Your task to perform on an android device: turn off javascript in the chrome app Image 0: 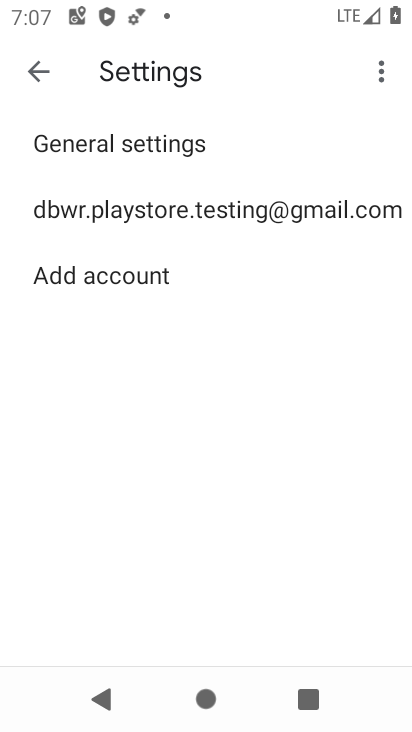
Step 0: press home button
Your task to perform on an android device: turn off javascript in the chrome app Image 1: 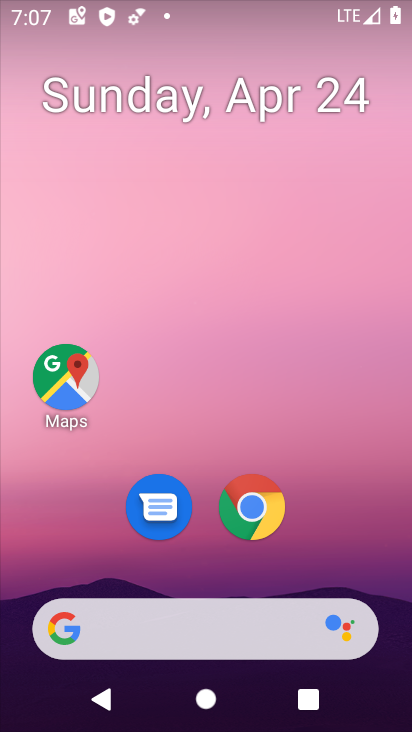
Step 1: drag from (325, 516) to (333, 0)
Your task to perform on an android device: turn off javascript in the chrome app Image 2: 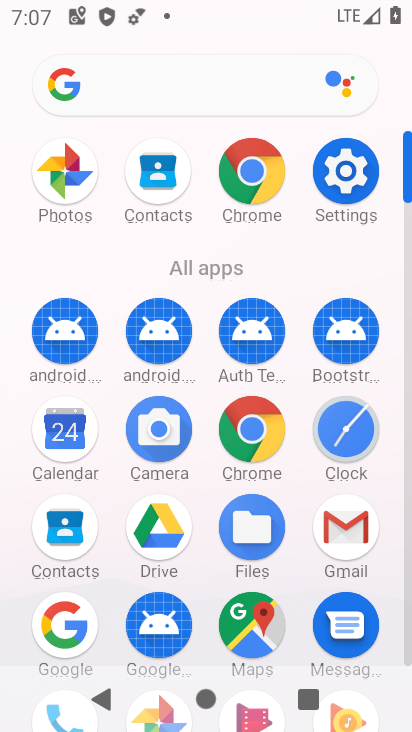
Step 2: click (264, 172)
Your task to perform on an android device: turn off javascript in the chrome app Image 3: 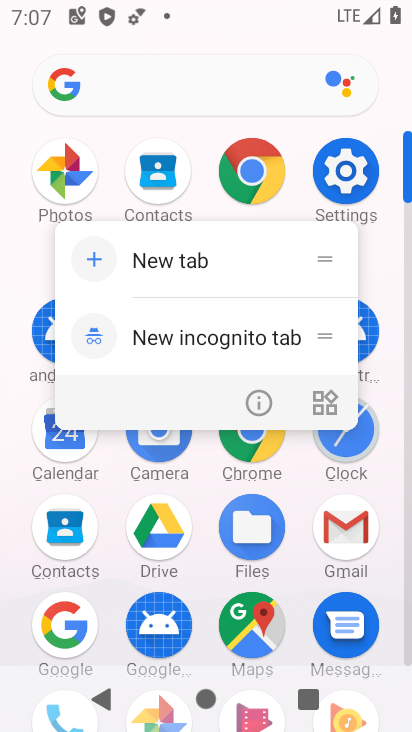
Step 3: click (264, 172)
Your task to perform on an android device: turn off javascript in the chrome app Image 4: 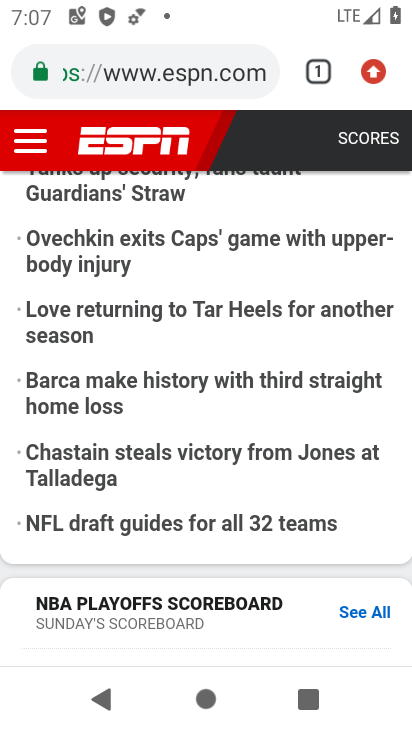
Step 4: click (391, 66)
Your task to perform on an android device: turn off javascript in the chrome app Image 5: 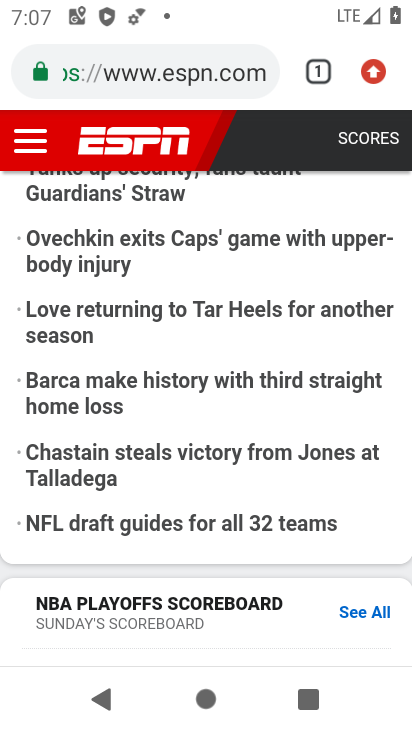
Step 5: click (374, 72)
Your task to perform on an android device: turn off javascript in the chrome app Image 6: 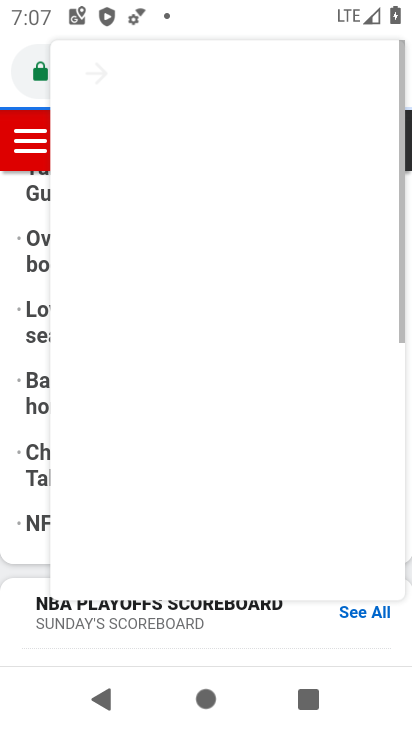
Step 6: click (374, 72)
Your task to perform on an android device: turn off javascript in the chrome app Image 7: 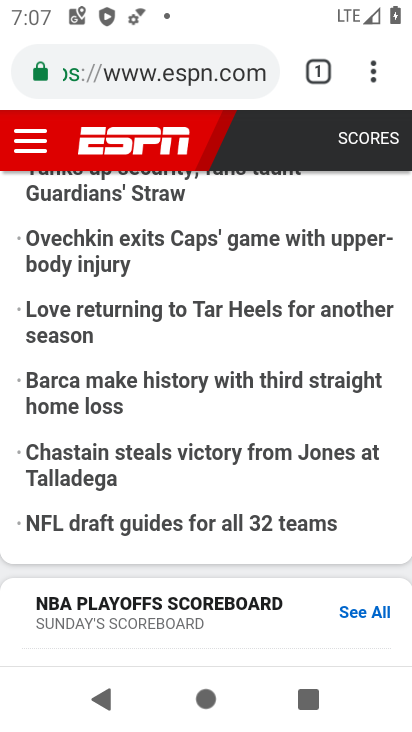
Step 7: drag from (373, 77) to (161, 499)
Your task to perform on an android device: turn off javascript in the chrome app Image 8: 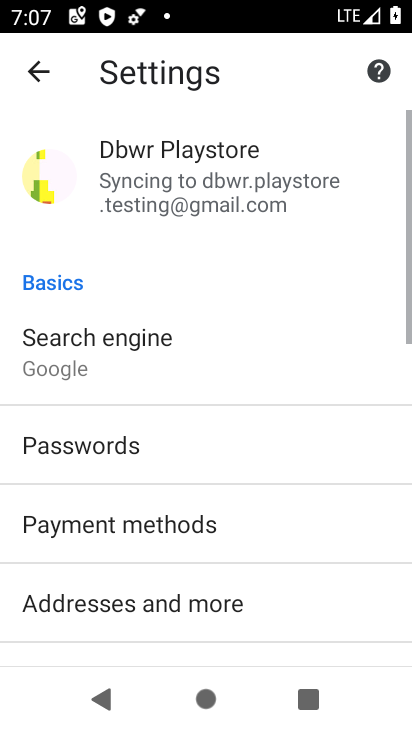
Step 8: drag from (158, 552) to (145, 144)
Your task to perform on an android device: turn off javascript in the chrome app Image 9: 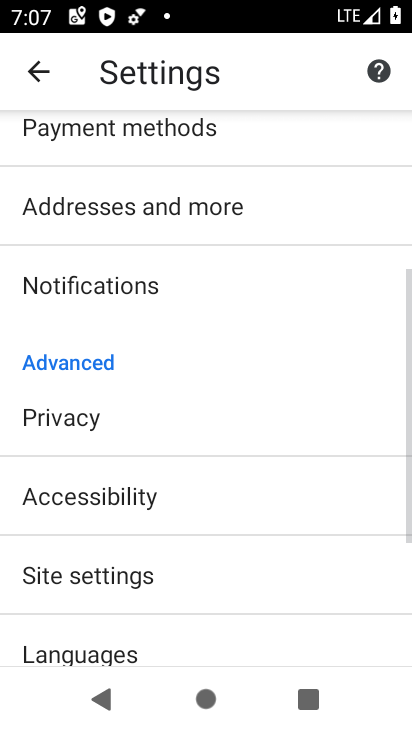
Step 9: drag from (113, 547) to (147, 209)
Your task to perform on an android device: turn off javascript in the chrome app Image 10: 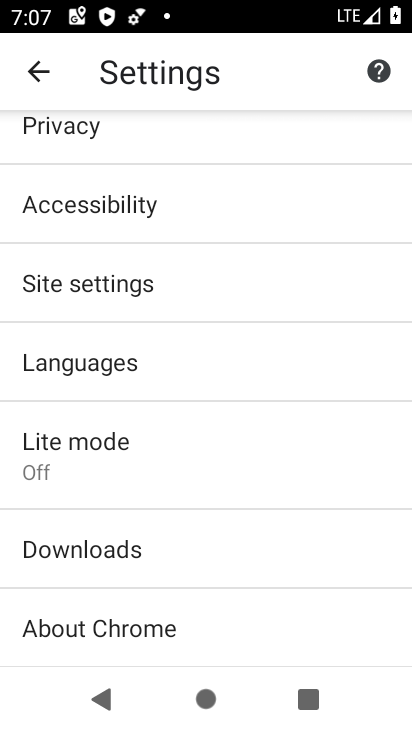
Step 10: click (74, 288)
Your task to perform on an android device: turn off javascript in the chrome app Image 11: 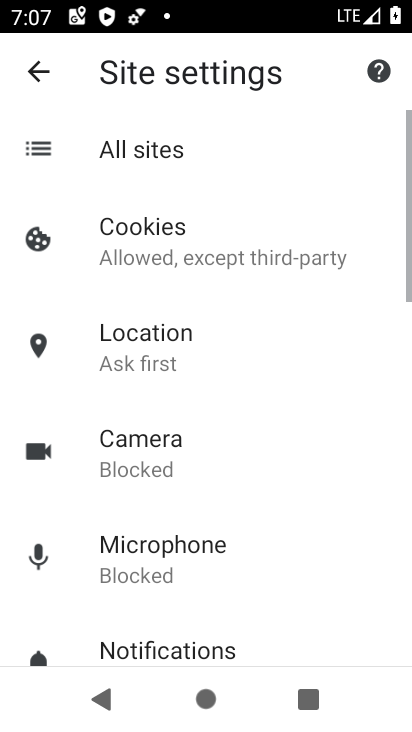
Step 11: drag from (154, 505) to (240, 185)
Your task to perform on an android device: turn off javascript in the chrome app Image 12: 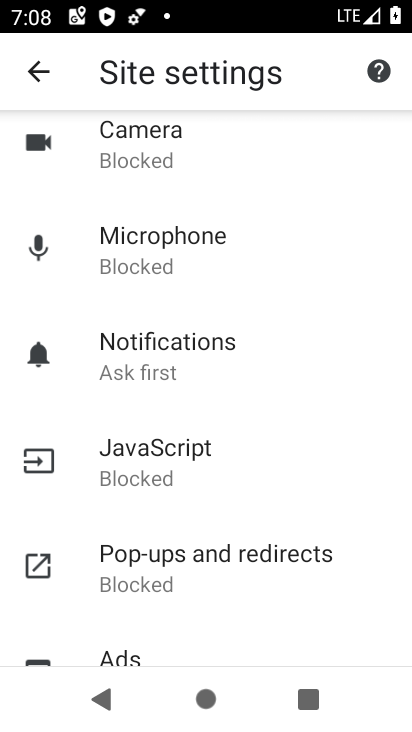
Step 12: click (164, 474)
Your task to perform on an android device: turn off javascript in the chrome app Image 13: 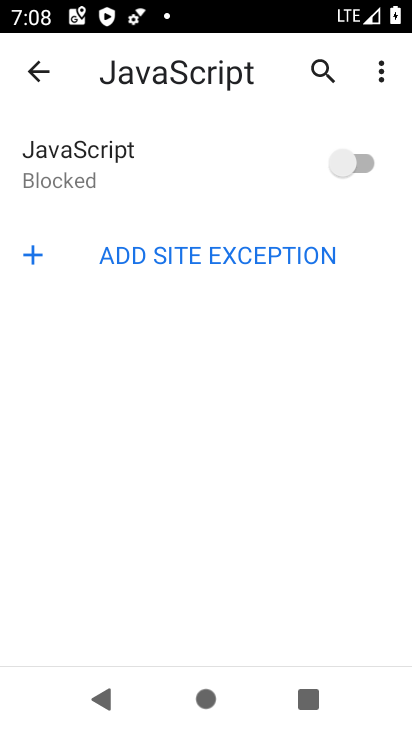
Step 13: task complete